Your task to perform on an android device: toggle translation in the chrome app Image 0: 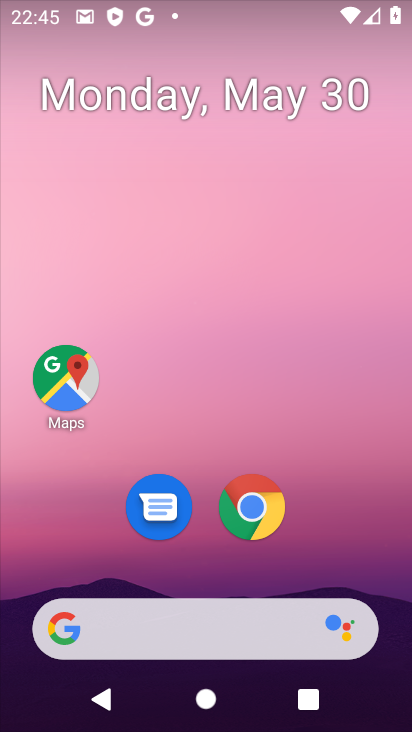
Step 0: drag from (382, 554) to (364, 93)
Your task to perform on an android device: toggle translation in the chrome app Image 1: 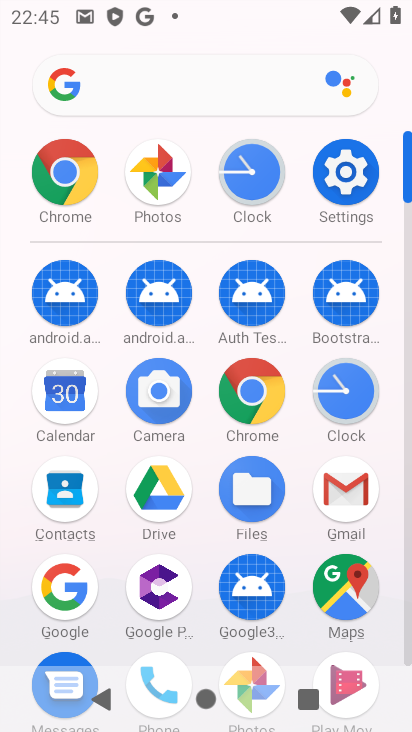
Step 1: click (260, 397)
Your task to perform on an android device: toggle translation in the chrome app Image 2: 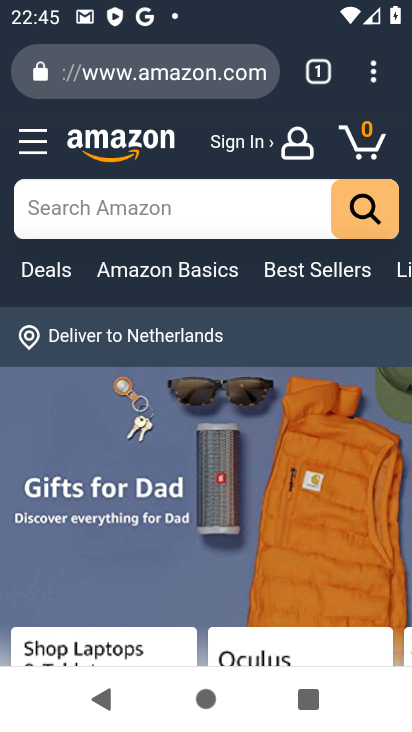
Step 2: click (375, 79)
Your task to perform on an android device: toggle translation in the chrome app Image 3: 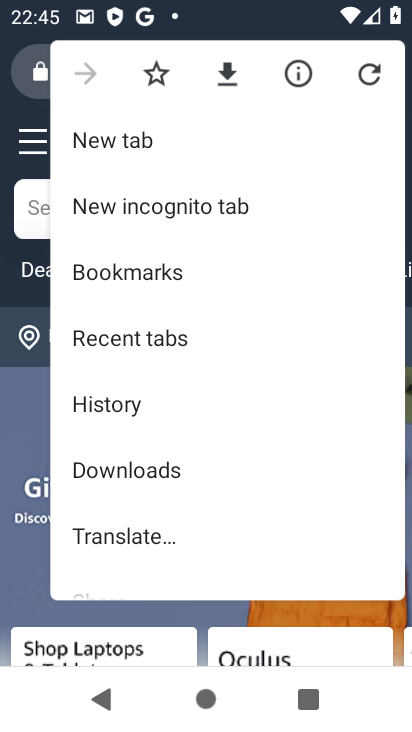
Step 3: drag from (309, 511) to (333, 251)
Your task to perform on an android device: toggle translation in the chrome app Image 4: 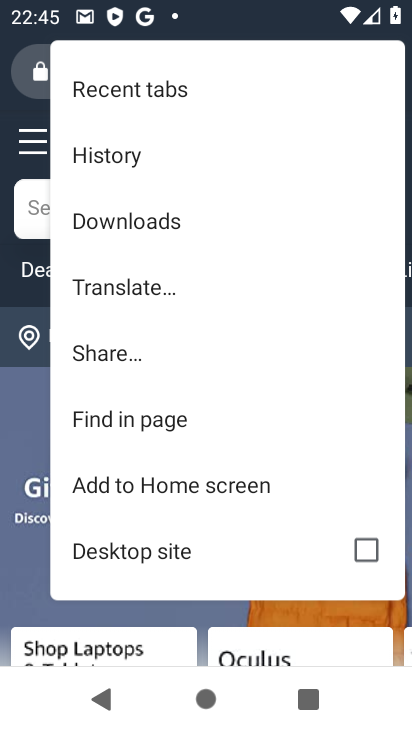
Step 4: drag from (286, 517) to (281, 328)
Your task to perform on an android device: toggle translation in the chrome app Image 5: 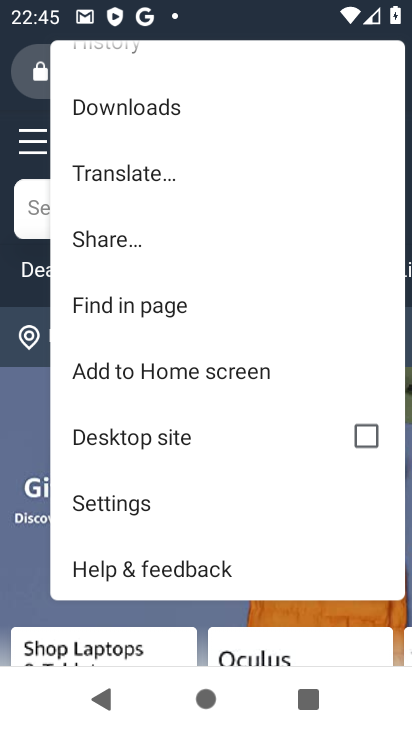
Step 5: click (132, 504)
Your task to perform on an android device: toggle translation in the chrome app Image 6: 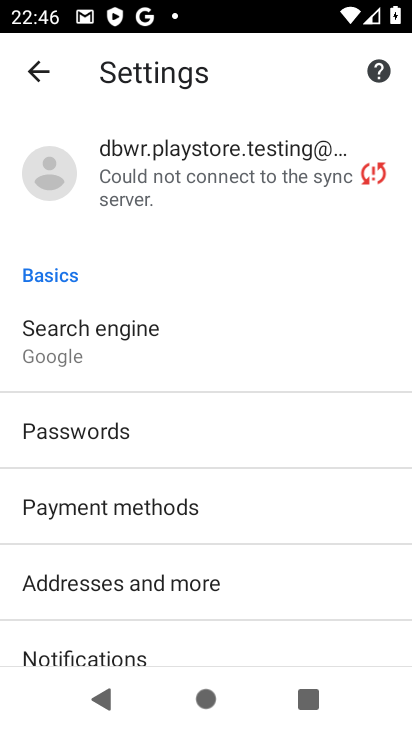
Step 6: drag from (328, 567) to (325, 478)
Your task to perform on an android device: toggle translation in the chrome app Image 7: 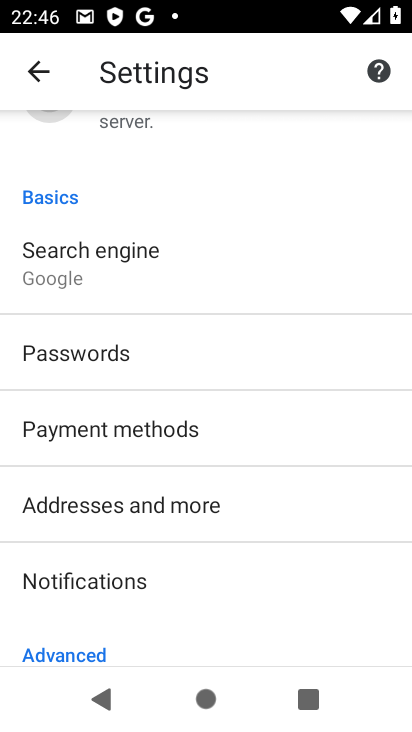
Step 7: drag from (322, 566) to (344, 322)
Your task to perform on an android device: toggle translation in the chrome app Image 8: 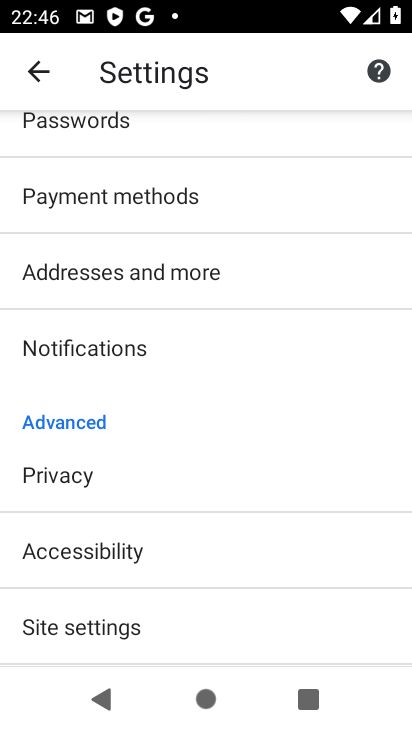
Step 8: drag from (338, 532) to (352, 360)
Your task to perform on an android device: toggle translation in the chrome app Image 9: 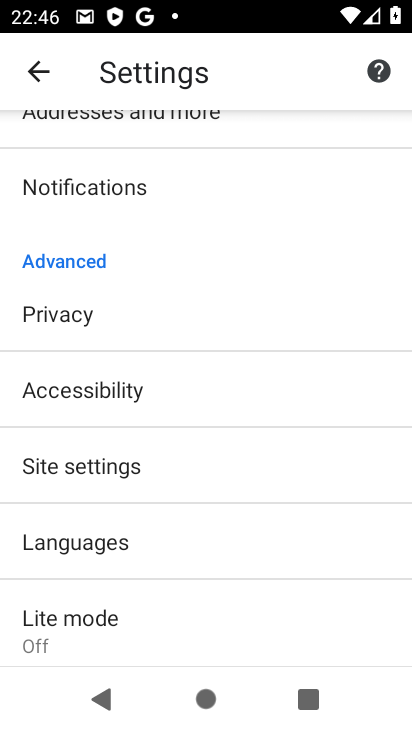
Step 9: drag from (310, 562) to (295, 390)
Your task to perform on an android device: toggle translation in the chrome app Image 10: 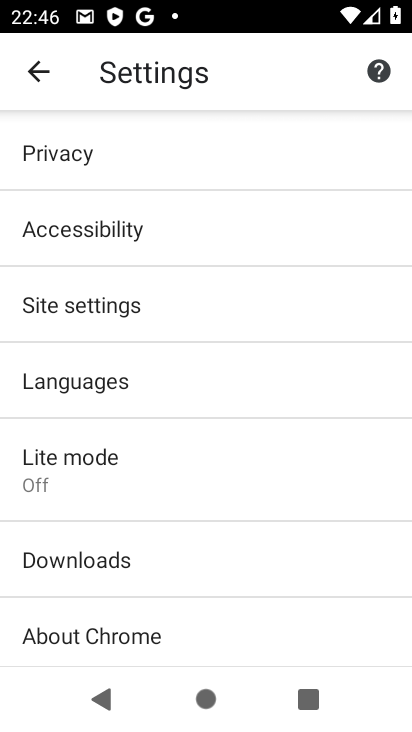
Step 10: drag from (298, 547) to (303, 375)
Your task to perform on an android device: toggle translation in the chrome app Image 11: 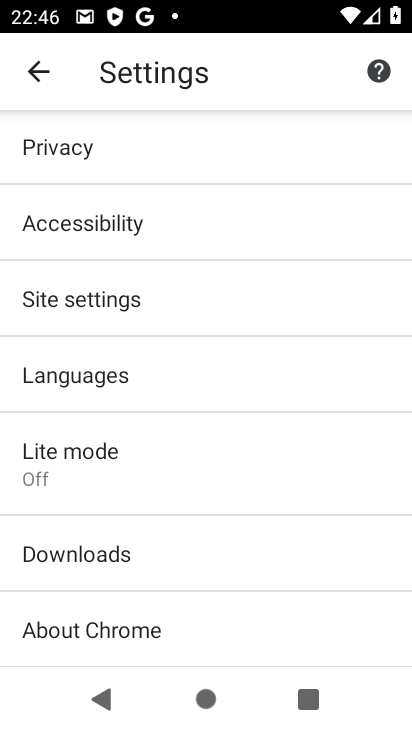
Step 11: click (204, 378)
Your task to perform on an android device: toggle translation in the chrome app Image 12: 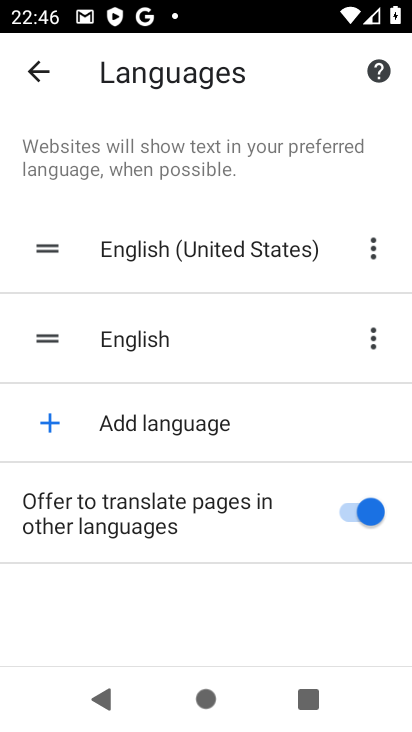
Step 12: click (372, 511)
Your task to perform on an android device: toggle translation in the chrome app Image 13: 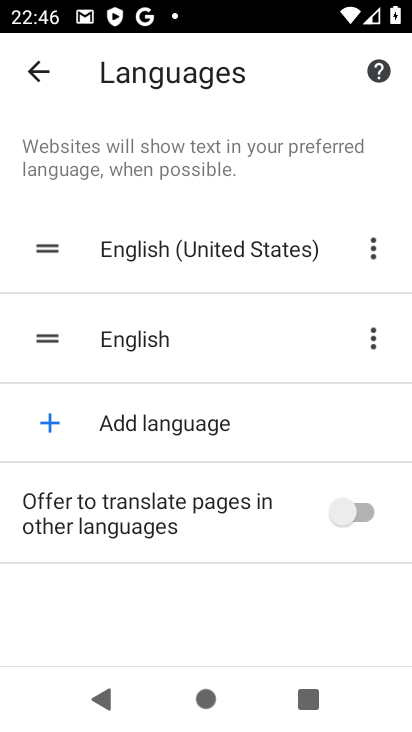
Step 13: task complete